Your task to perform on an android device: check battery use Image 0: 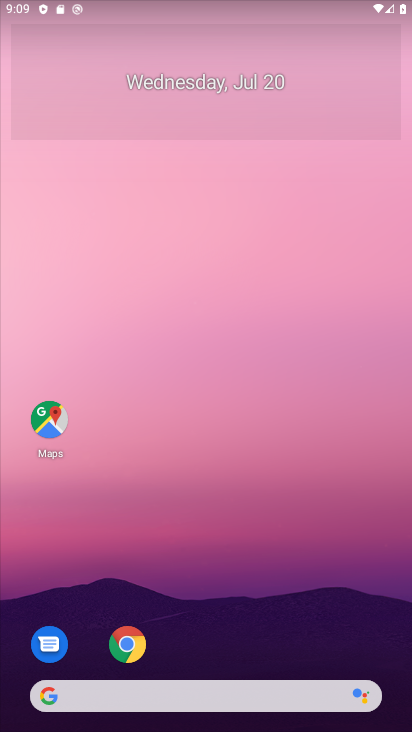
Step 0: drag from (310, 531) to (290, 257)
Your task to perform on an android device: check battery use Image 1: 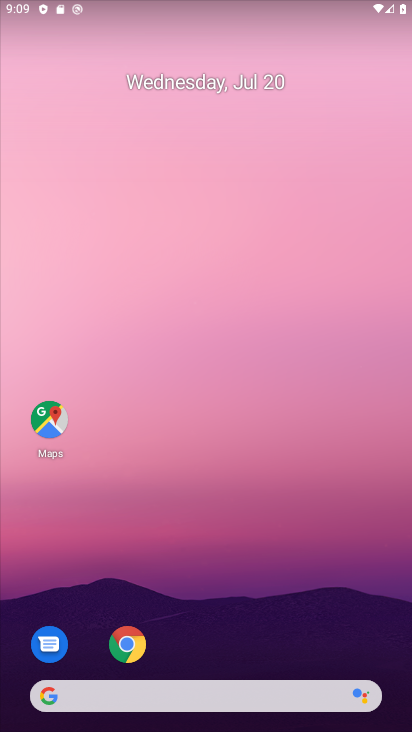
Step 1: drag from (173, 478) to (175, 153)
Your task to perform on an android device: check battery use Image 2: 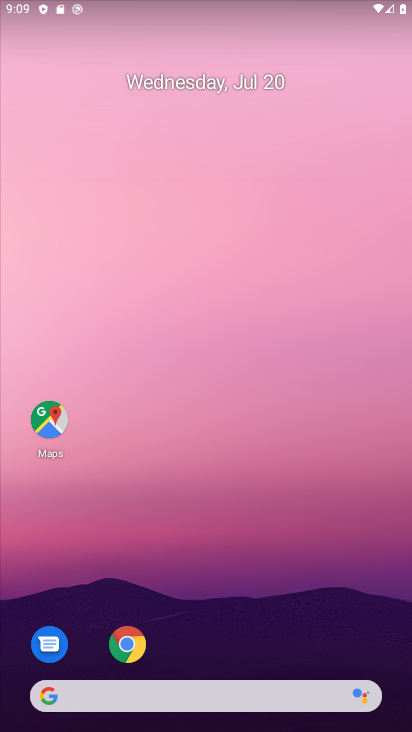
Step 2: drag from (224, 222) to (224, 175)
Your task to perform on an android device: check battery use Image 3: 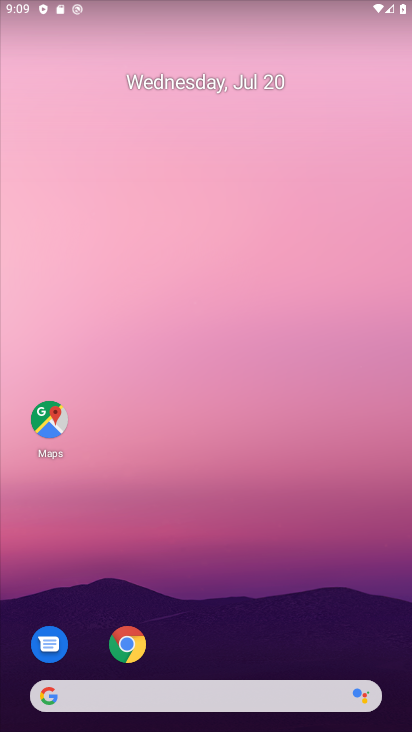
Step 3: drag from (222, 619) to (223, 235)
Your task to perform on an android device: check battery use Image 4: 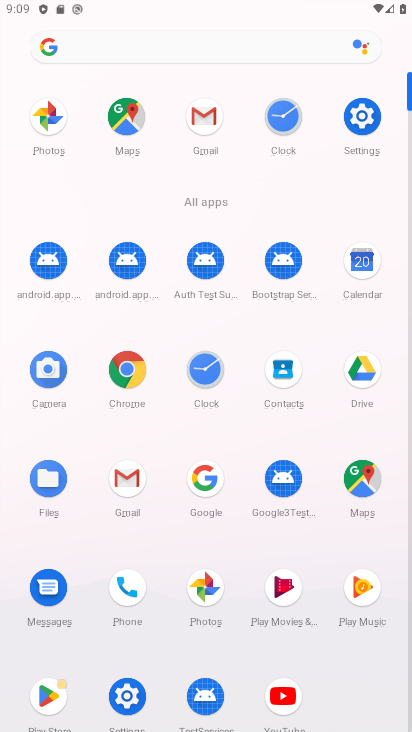
Step 4: click (351, 115)
Your task to perform on an android device: check battery use Image 5: 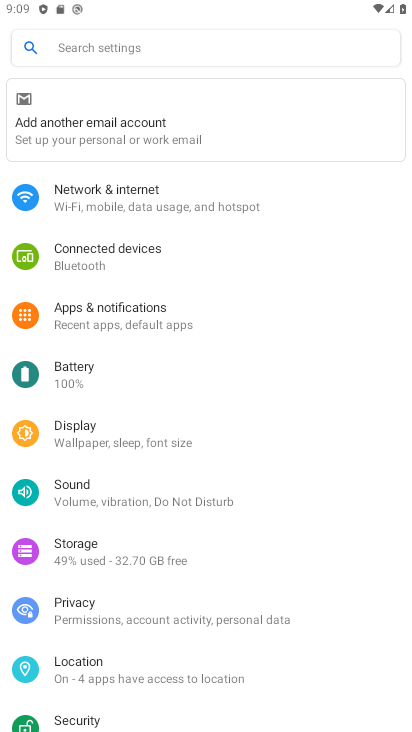
Step 5: click (83, 367)
Your task to perform on an android device: check battery use Image 6: 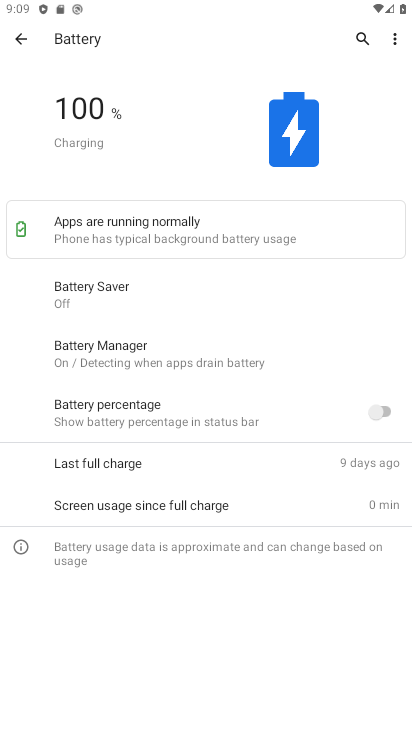
Step 6: task complete